Your task to perform on an android device: open app "Google Play services" (install if not already installed) Image 0: 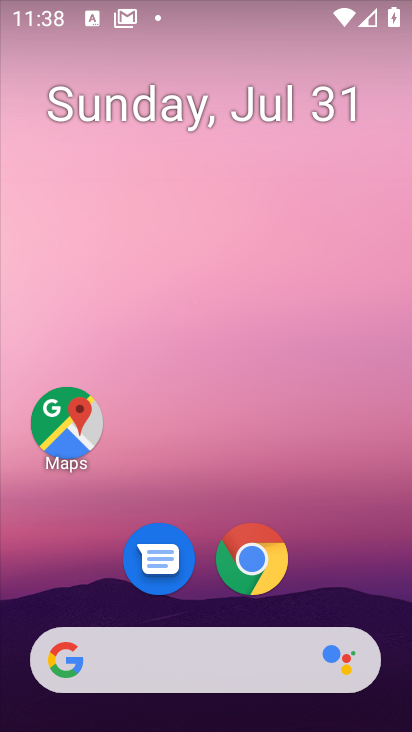
Step 0: drag from (93, 594) to (212, 15)
Your task to perform on an android device: open app "Google Play services" (install if not already installed) Image 1: 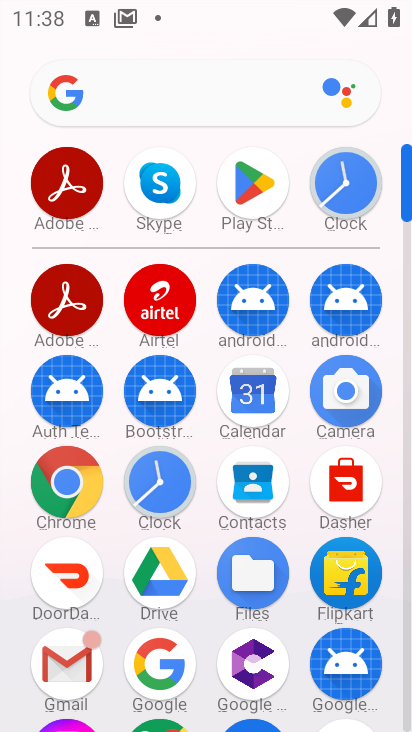
Step 1: click (245, 174)
Your task to perform on an android device: open app "Google Play services" (install if not already installed) Image 2: 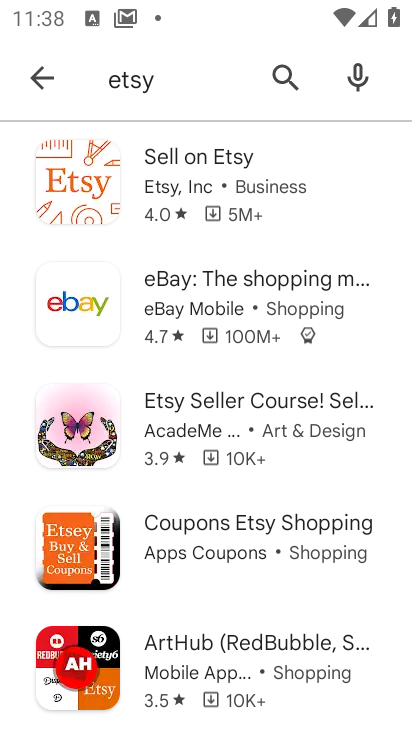
Step 2: click (289, 60)
Your task to perform on an android device: open app "Google Play services" (install if not already installed) Image 3: 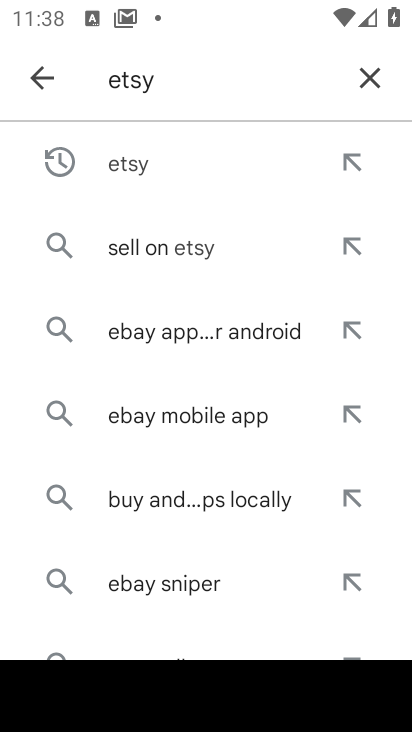
Step 3: click (367, 81)
Your task to perform on an android device: open app "Google Play services" (install if not already installed) Image 4: 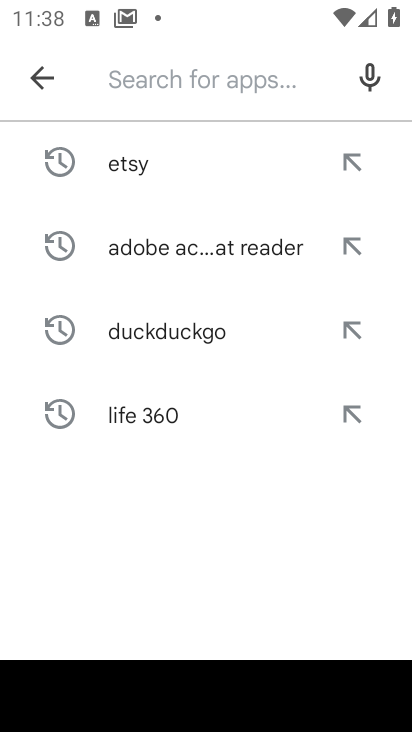
Step 4: click (138, 87)
Your task to perform on an android device: open app "Google Play services" (install if not already installed) Image 5: 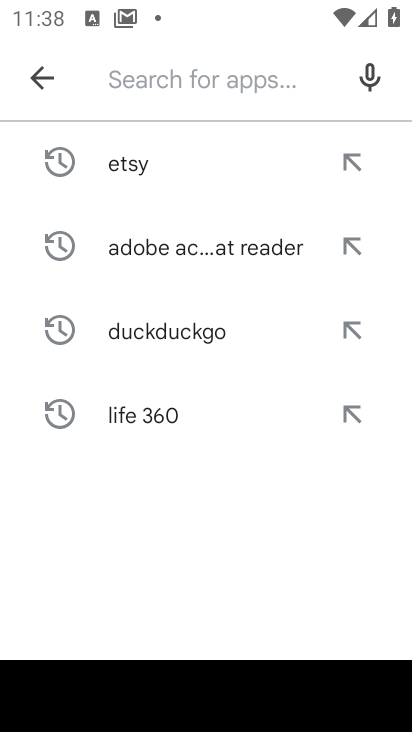
Step 5: type "google play services"
Your task to perform on an android device: open app "Google Play services" (install if not already installed) Image 6: 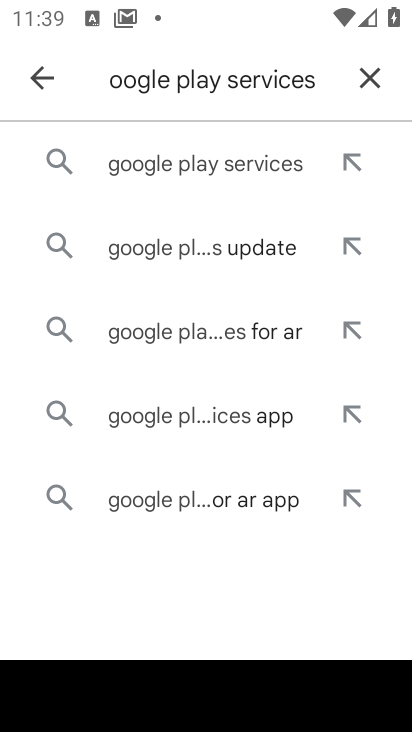
Step 6: click (196, 154)
Your task to perform on an android device: open app "Google Play services" (install if not already installed) Image 7: 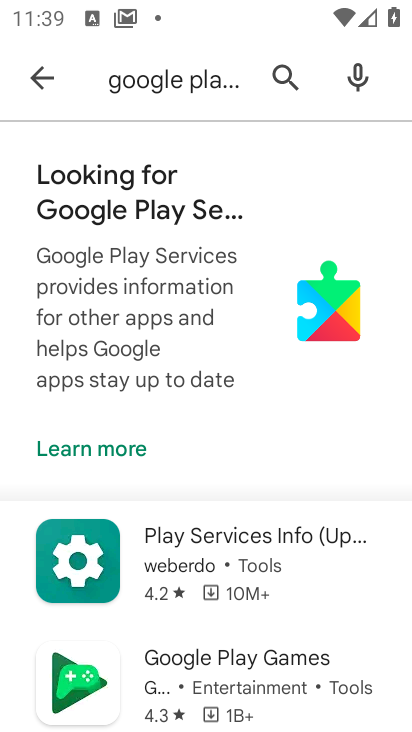
Step 7: task complete